Your task to perform on an android device: toggle data saver in the chrome app Image 0: 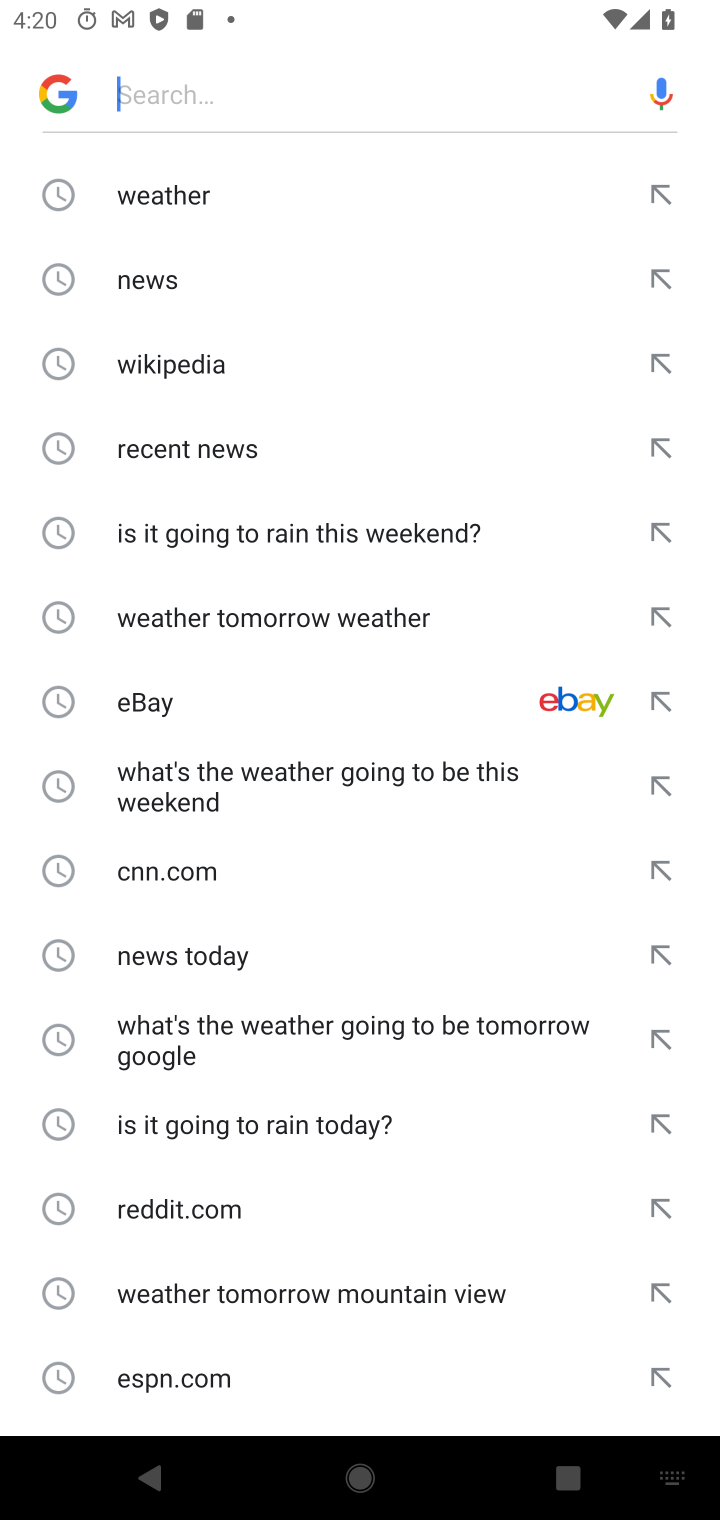
Step 0: press home button
Your task to perform on an android device: toggle data saver in the chrome app Image 1: 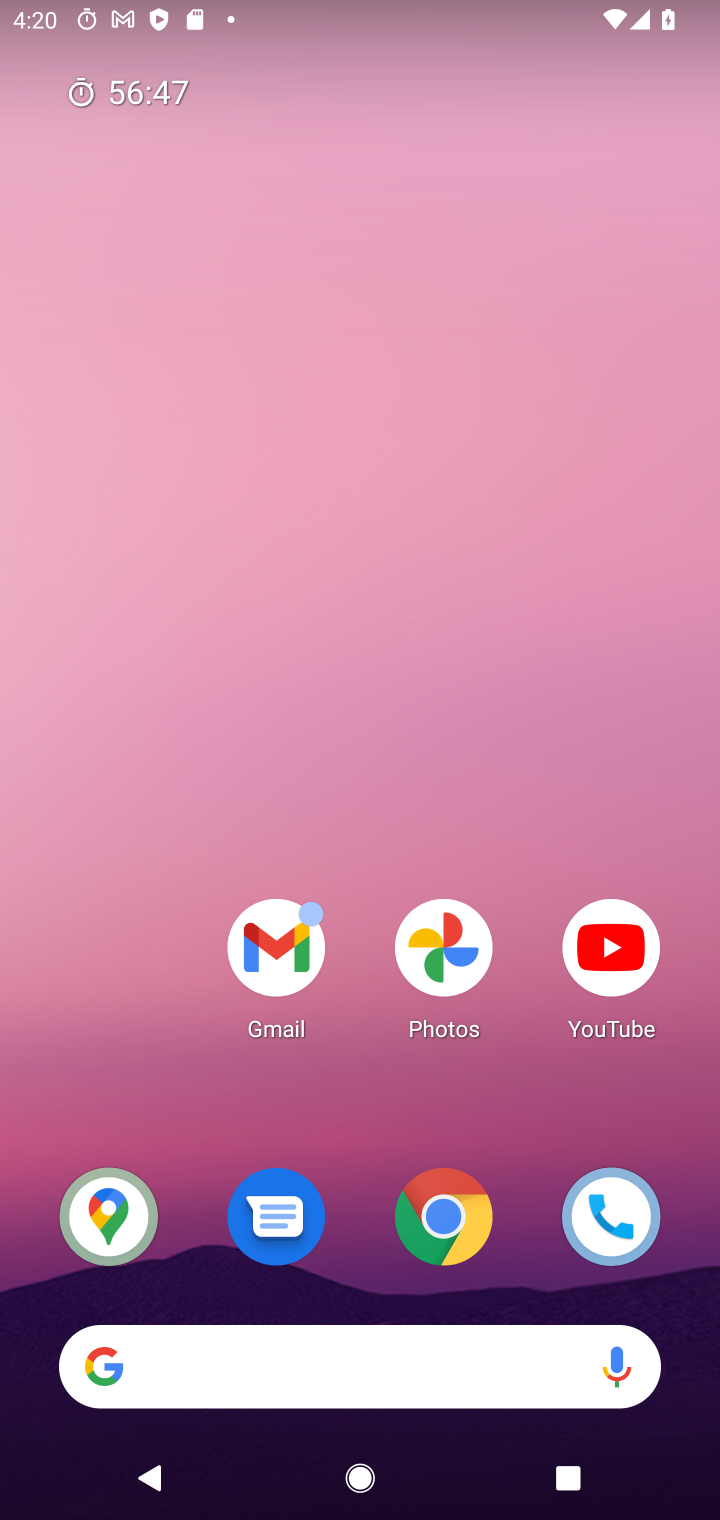
Step 1: click (466, 1229)
Your task to perform on an android device: toggle data saver in the chrome app Image 2: 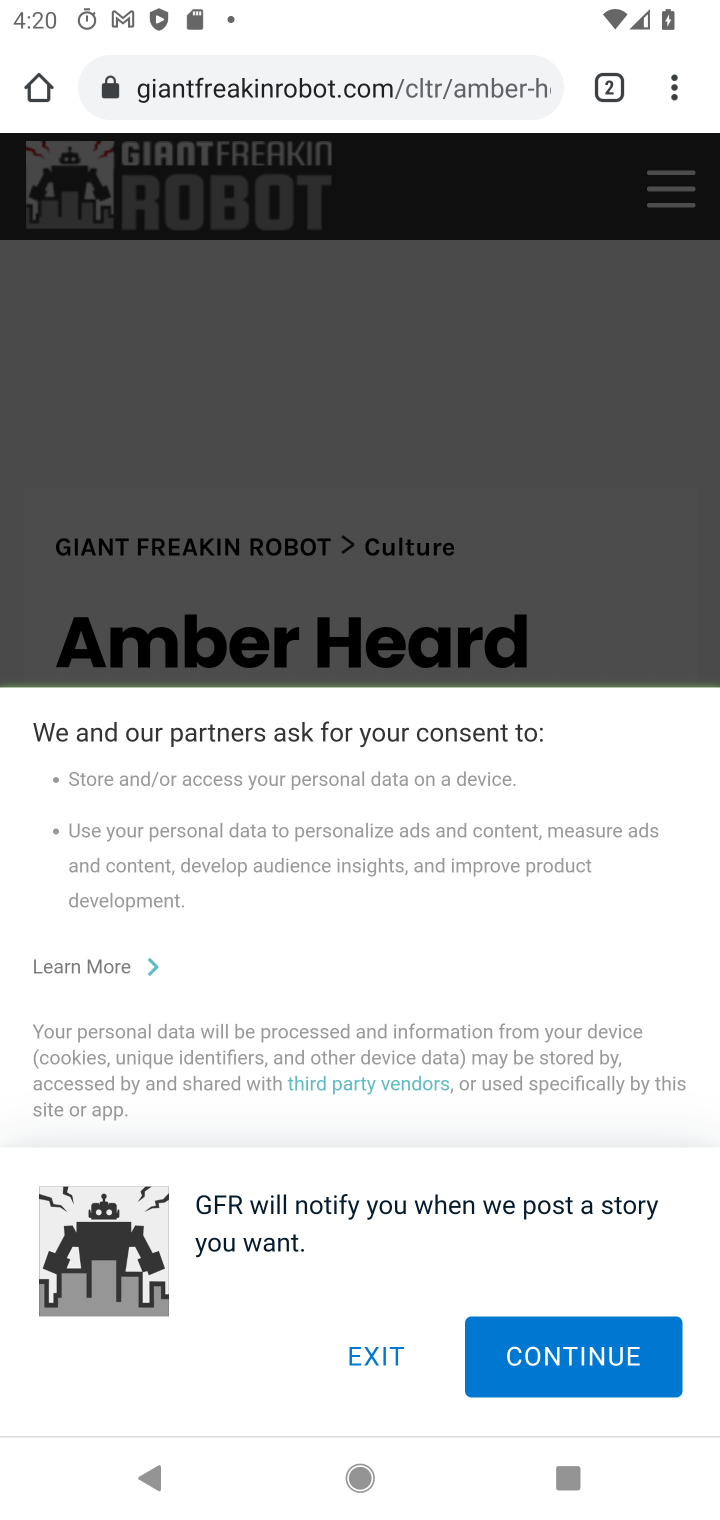
Step 2: click (388, 1352)
Your task to perform on an android device: toggle data saver in the chrome app Image 3: 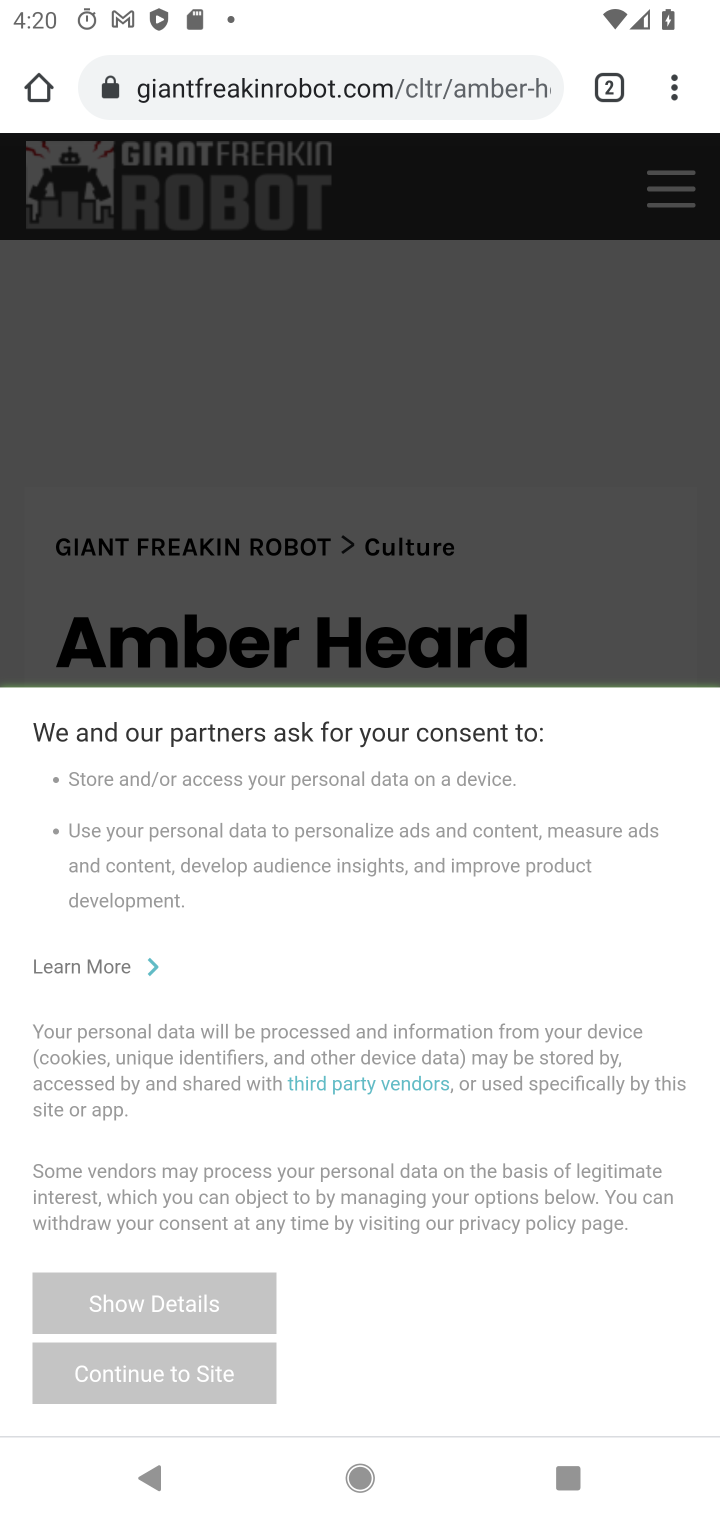
Step 3: task complete